Your task to perform on an android device: turn off priority inbox in the gmail app Image 0: 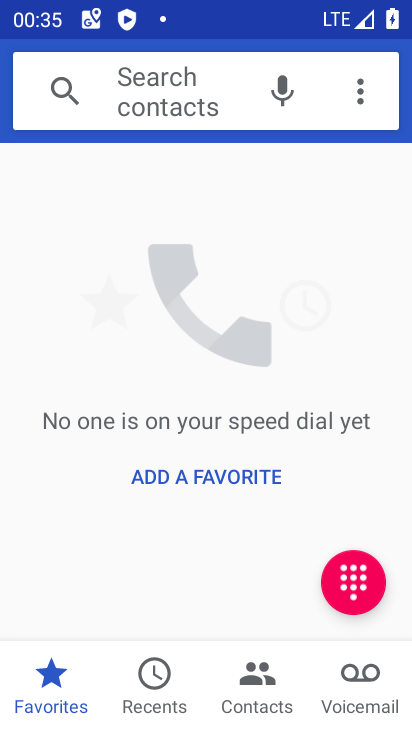
Step 0: press home button
Your task to perform on an android device: turn off priority inbox in the gmail app Image 1: 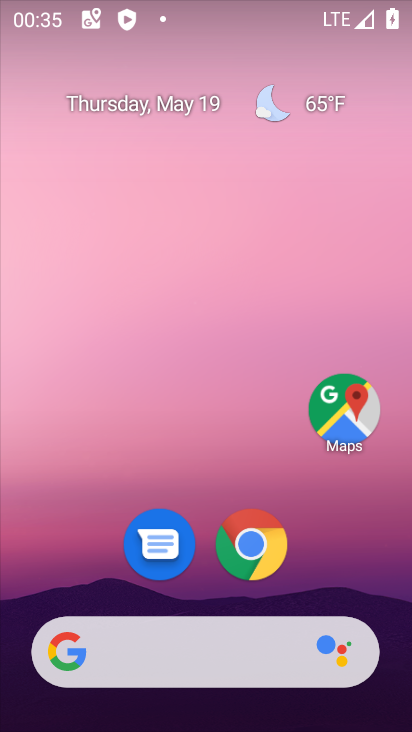
Step 1: drag from (357, 536) to (321, 168)
Your task to perform on an android device: turn off priority inbox in the gmail app Image 2: 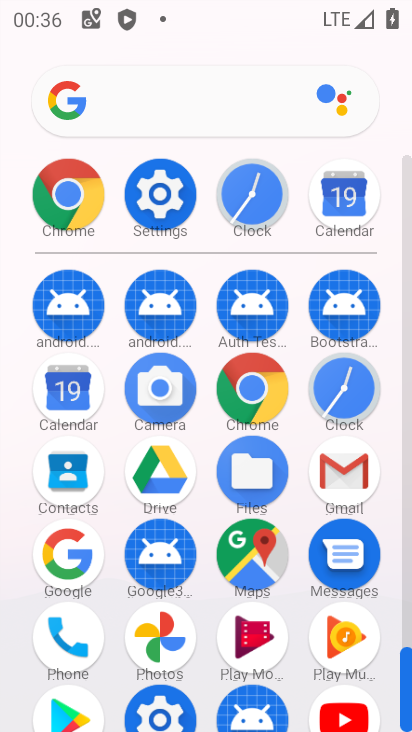
Step 2: click (328, 486)
Your task to perform on an android device: turn off priority inbox in the gmail app Image 3: 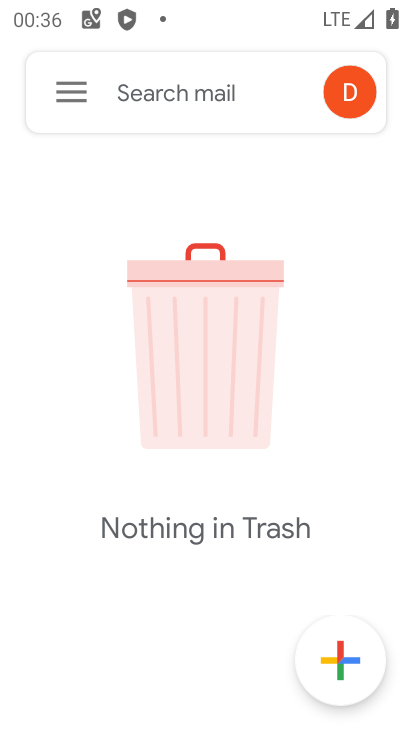
Step 3: click (73, 103)
Your task to perform on an android device: turn off priority inbox in the gmail app Image 4: 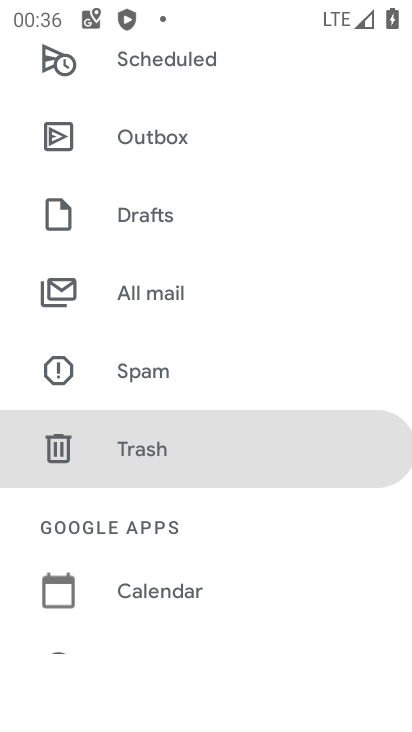
Step 4: drag from (257, 580) to (300, 357)
Your task to perform on an android device: turn off priority inbox in the gmail app Image 5: 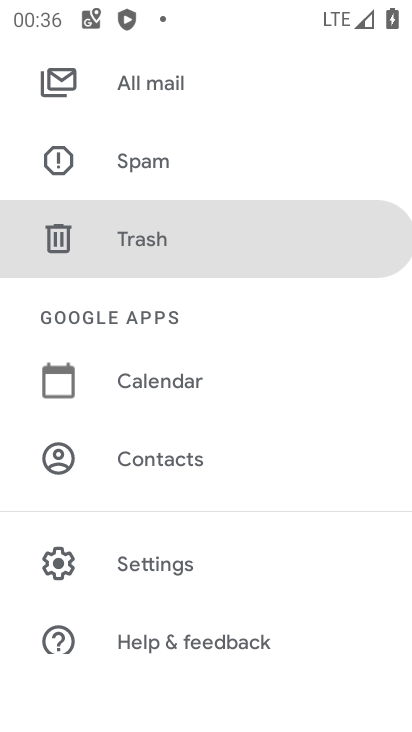
Step 5: drag from (335, 569) to (316, 405)
Your task to perform on an android device: turn off priority inbox in the gmail app Image 6: 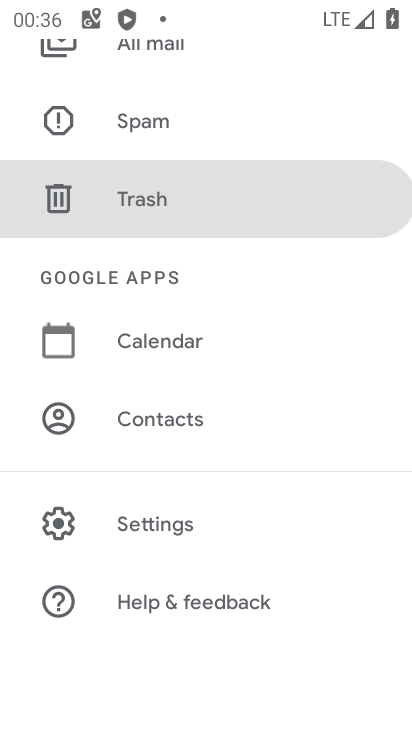
Step 6: drag from (300, 553) to (298, 392)
Your task to perform on an android device: turn off priority inbox in the gmail app Image 7: 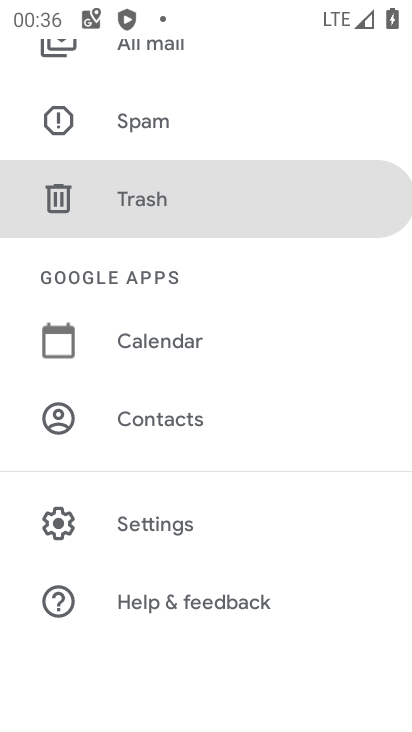
Step 7: click (210, 537)
Your task to perform on an android device: turn off priority inbox in the gmail app Image 8: 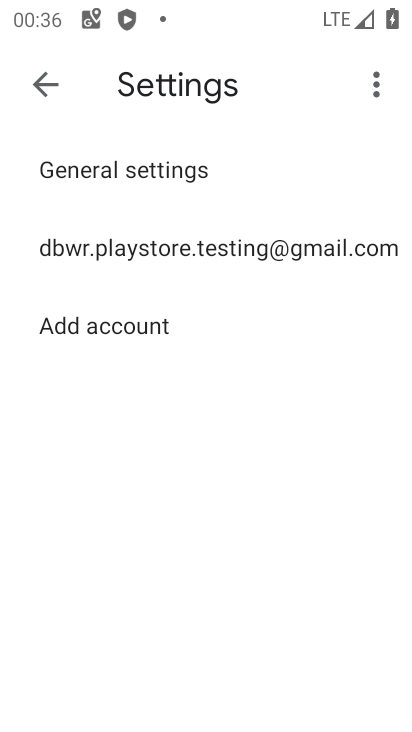
Step 8: click (288, 256)
Your task to perform on an android device: turn off priority inbox in the gmail app Image 9: 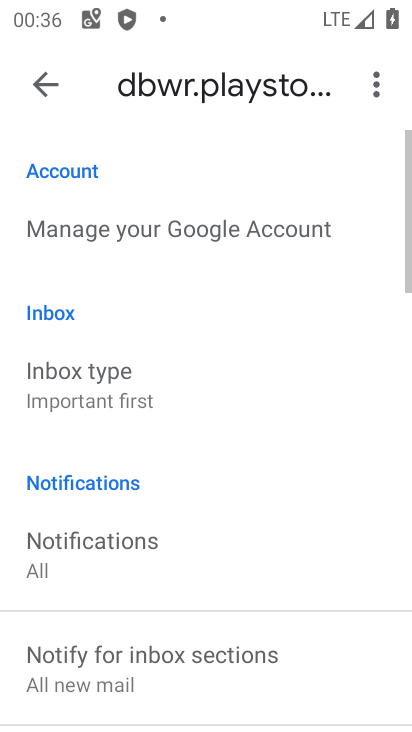
Step 9: task complete